Your task to perform on an android device: Search for Italian restaurants on Maps Image 0: 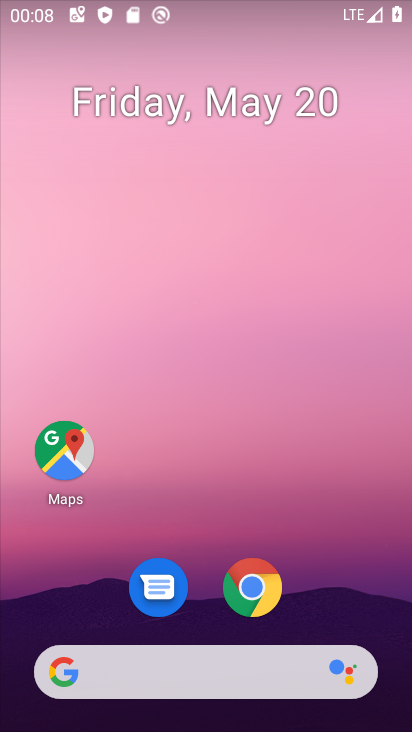
Step 0: drag from (264, 668) to (166, 171)
Your task to perform on an android device: Search for Italian restaurants on Maps Image 1: 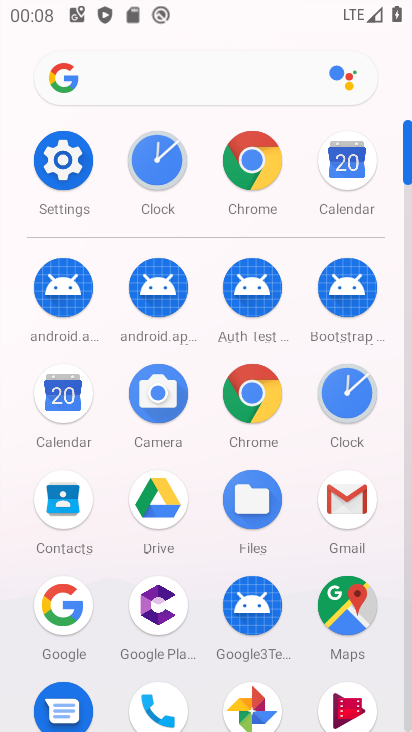
Step 1: click (368, 609)
Your task to perform on an android device: Search for Italian restaurants on Maps Image 2: 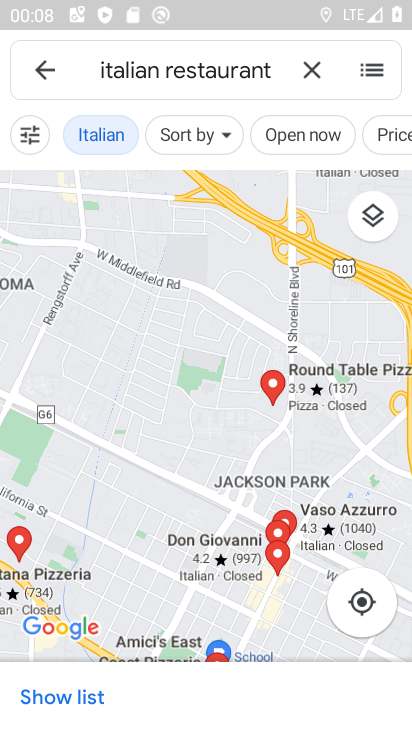
Step 2: task complete